Your task to perform on an android device: all mails in gmail Image 0: 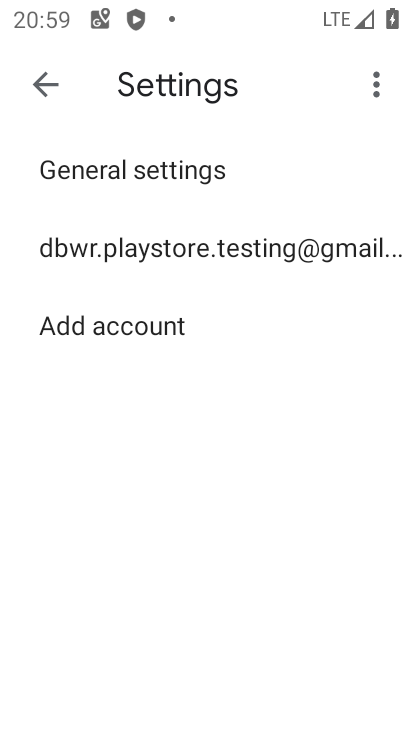
Step 0: press home button
Your task to perform on an android device: all mails in gmail Image 1: 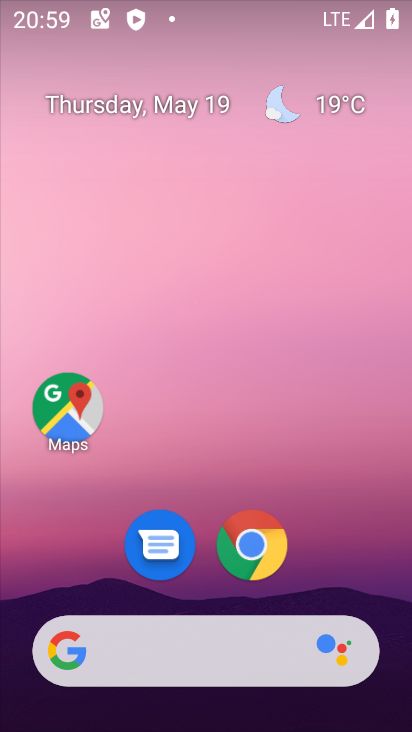
Step 1: drag from (346, 552) to (300, 110)
Your task to perform on an android device: all mails in gmail Image 2: 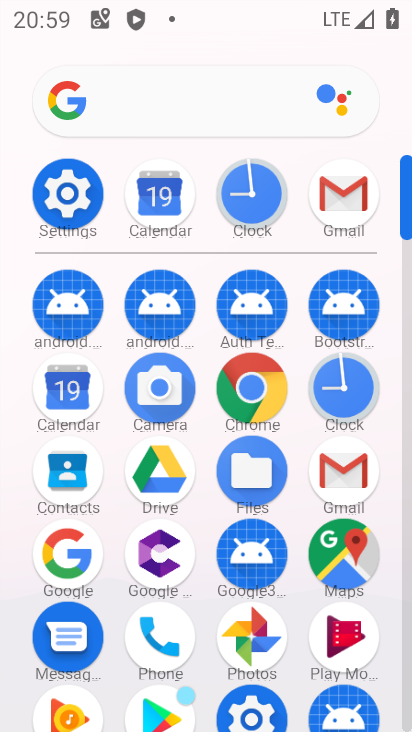
Step 2: click (349, 189)
Your task to perform on an android device: all mails in gmail Image 3: 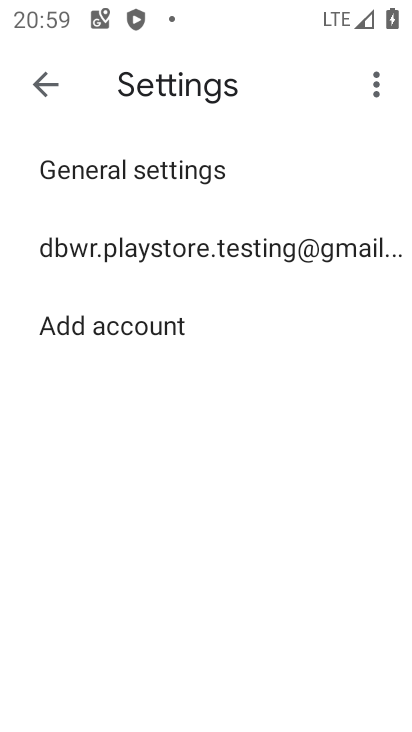
Step 3: click (40, 83)
Your task to perform on an android device: all mails in gmail Image 4: 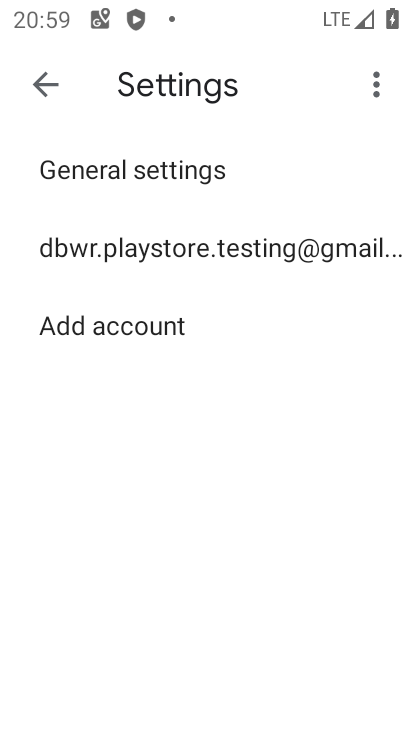
Step 4: click (46, 92)
Your task to perform on an android device: all mails in gmail Image 5: 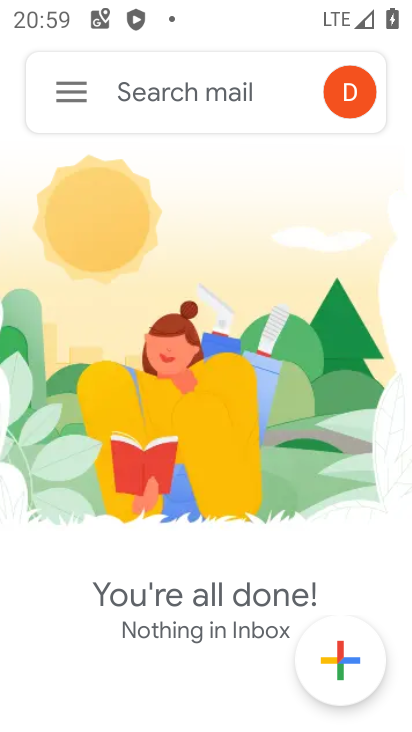
Step 5: click (59, 91)
Your task to perform on an android device: all mails in gmail Image 6: 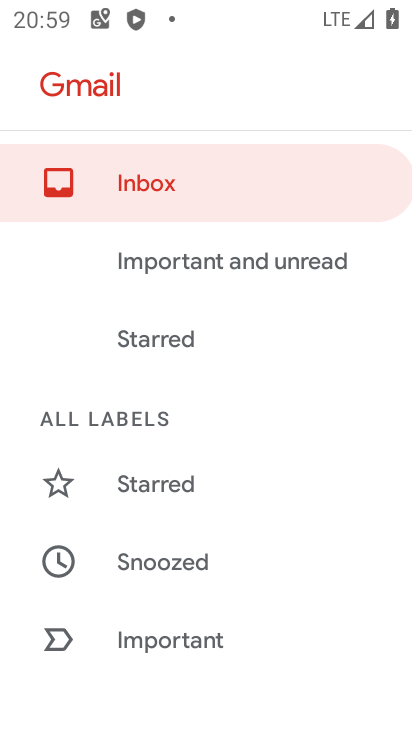
Step 6: drag from (130, 527) to (138, 384)
Your task to perform on an android device: all mails in gmail Image 7: 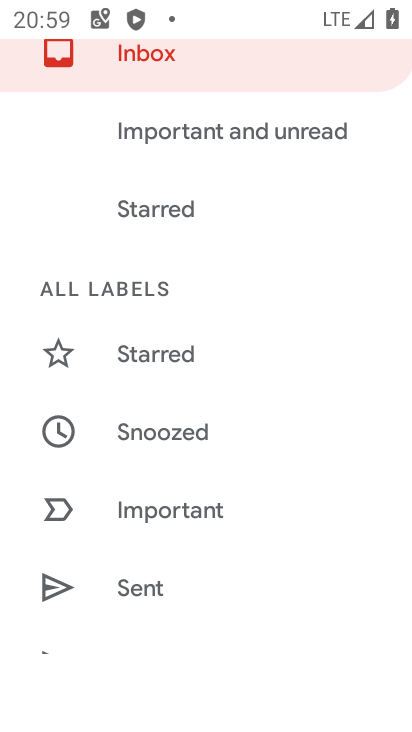
Step 7: drag from (194, 500) to (197, 365)
Your task to perform on an android device: all mails in gmail Image 8: 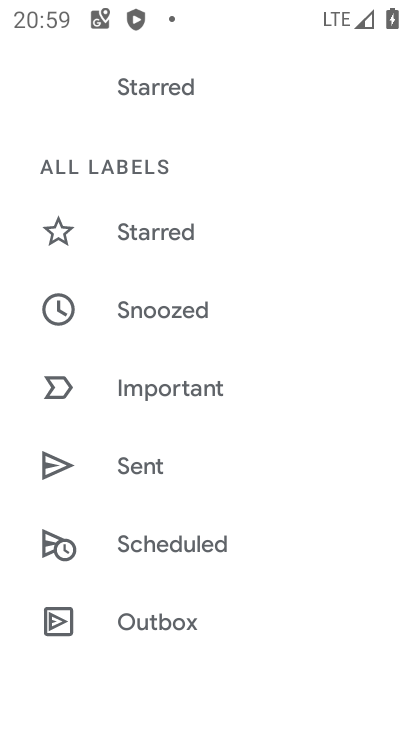
Step 8: drag from (197, 575) to (196, 423)
Your task to perform on an android device: all mails in gmail Image 9: 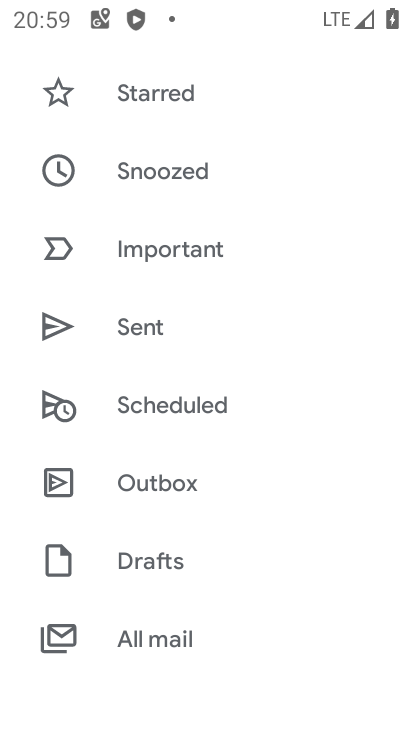
Step 9: click (186, 620)
Your task to perform on an android device: all mails in gmail Image 10: 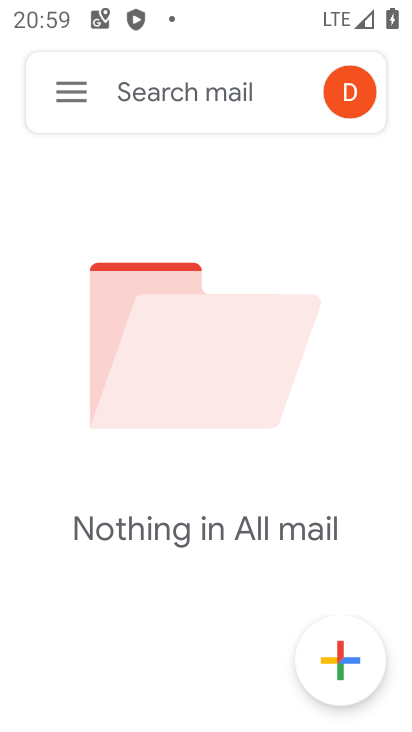
Step 10: task complete